Your task to perform on an android device: Open calendar and show me the fourth week of next month Image 0: 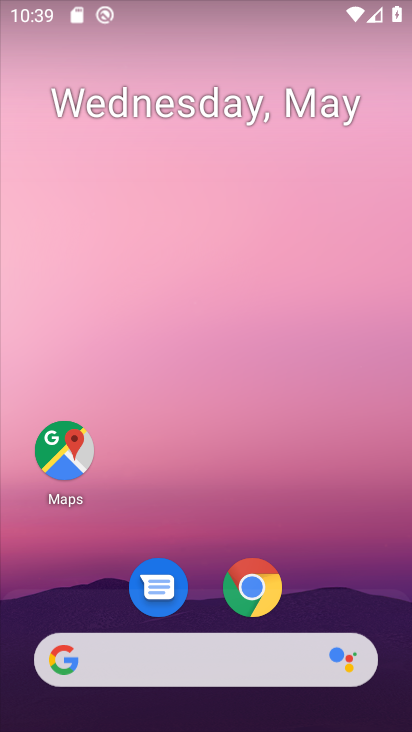
Step 0: drag from (325, 575) to (173, 15)
Your task to perform on an android device: Open calendar and show me the fourth week of next month Image 1: 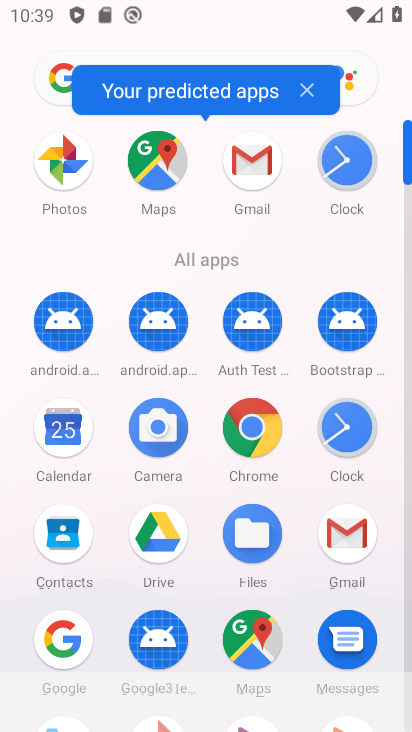
Step 1: click (67, 459)
Your task to perform on an android device: Open calendar and show me the fourth week of next month Image 2: 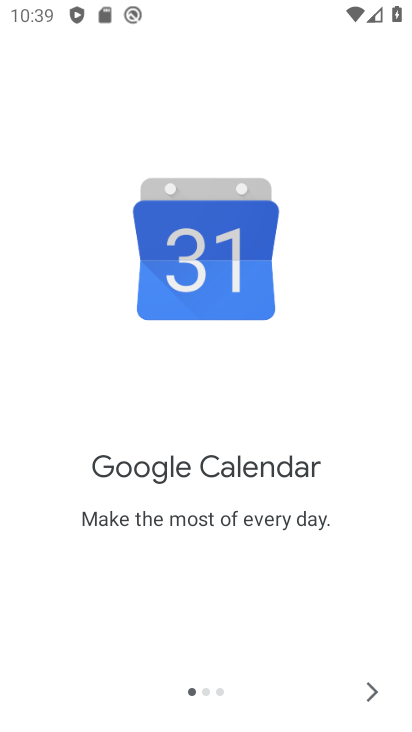
Step 2: click (374, 697)
Your task to perform on an android device: Open calendar and show me the fourth week of next month Image 3: 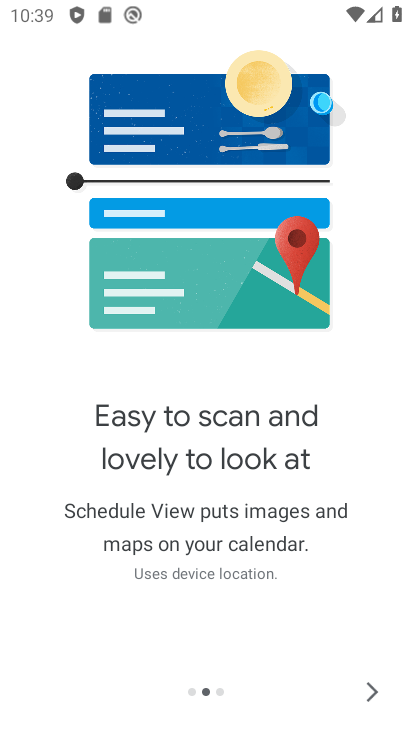
Step 3: click (374, 697)
Your task to perform on an android device: Open calendar and show me the fourth week of next month Image 4: 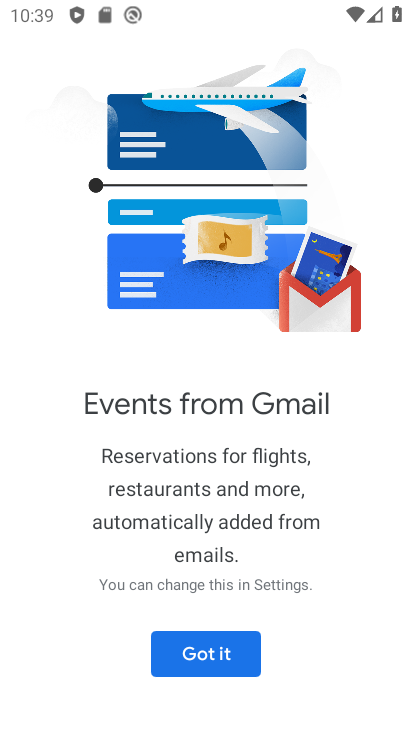
Step 4: click (211, 662)
Your task to perform on an android device: Open calendar and show me the fourth week of next month Image 5: 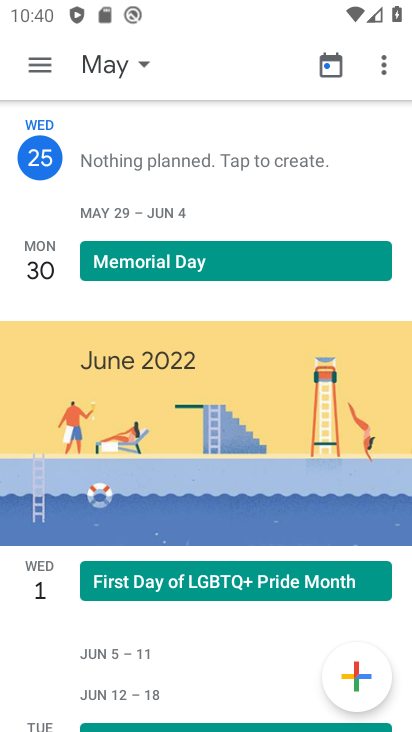
Step 5: click (51, 75)
Your task to perform on an android device: Open calendar and show me the fourth week of next month Image 6: 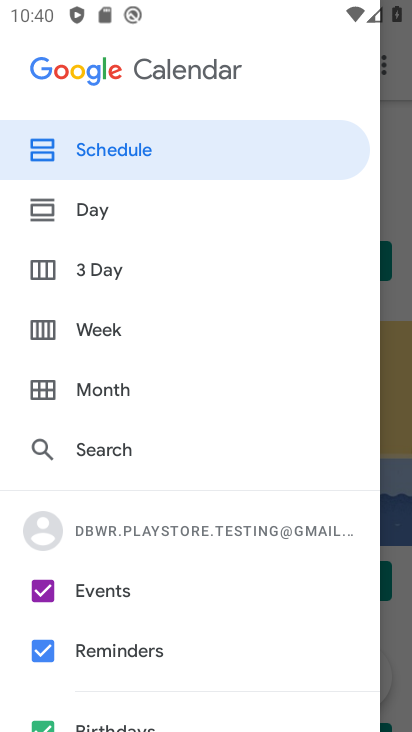
Step 6: click (98, 324)
Your task to perform on an android device: Open calendar and show me the fourth week of next month Image 7: 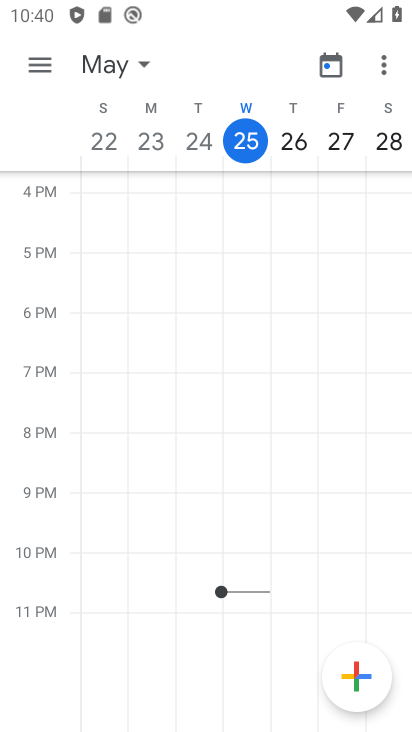
Step 7: click (98, 68)
Your task to perform on an android device: Open calendar and show me the fourth week of next month Image 8: 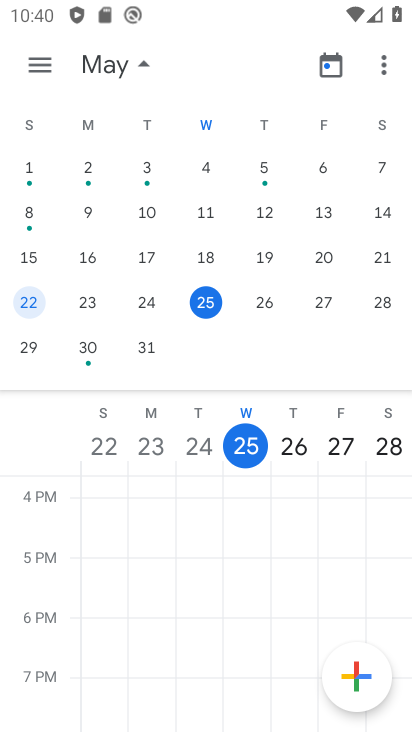
Step 8: drag from (360, 267) to (7, 318)
Your task to perform on an android device: Open calendar and show me the fourth week of next month Image 9: 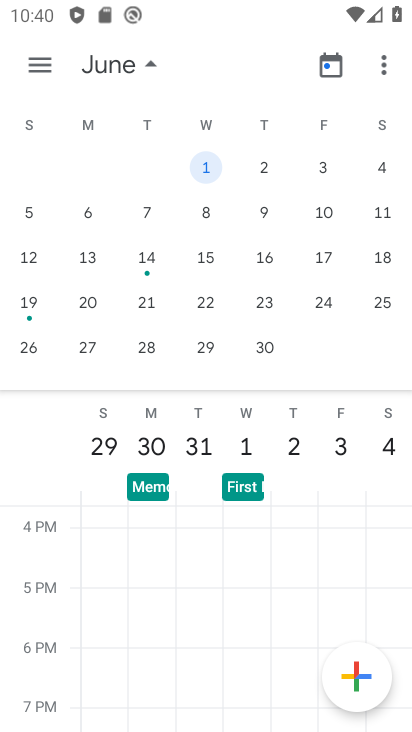
Step 9: click (30, 350)
Your task to perform on an android device: Open calendar and show me the fourth week of next month Image 10: 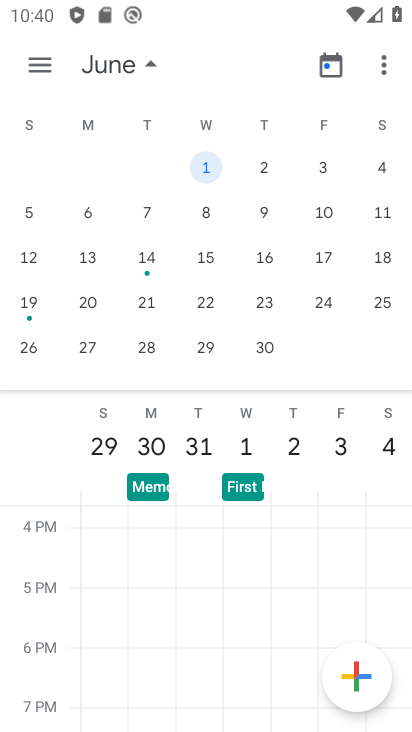
Step 10: click (37, 347)
Your task to perform on an android device: Open calendar and show me the fourth week of next month Image 11: 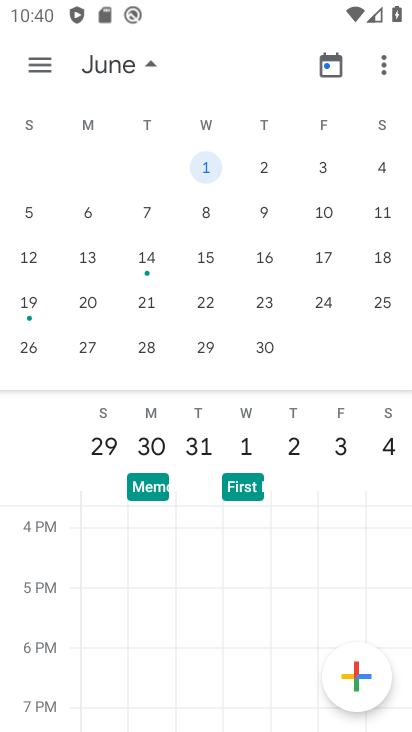
Step 11: click (32, 349)
Your task to perform on an android device: Open calendar and show me the fourth week of next month Image 12: 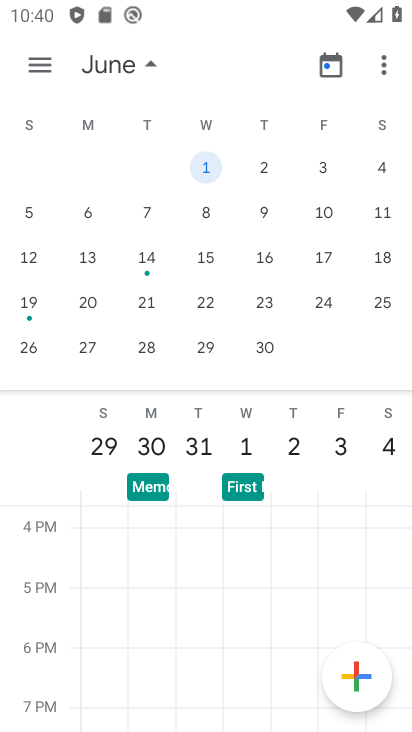
Step 12: click (32, 349)
Your task to perform on an android device: Open calendar and show me the fourth week of next month Image 13: 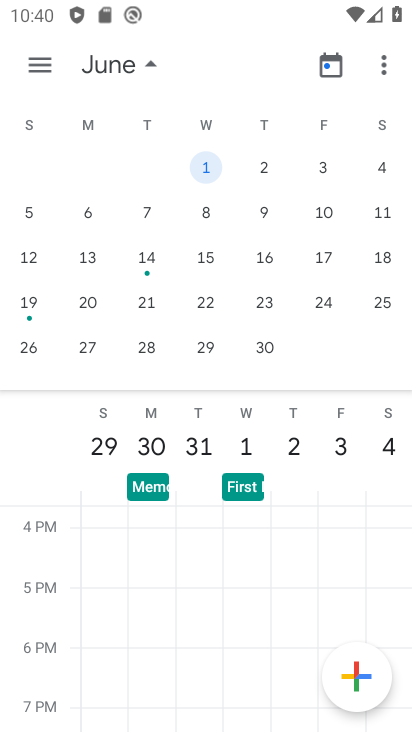
Step 13: click (31, 348)
Your task to perform on an android device: Open calendar and show me the fourth week of next month Image 14: 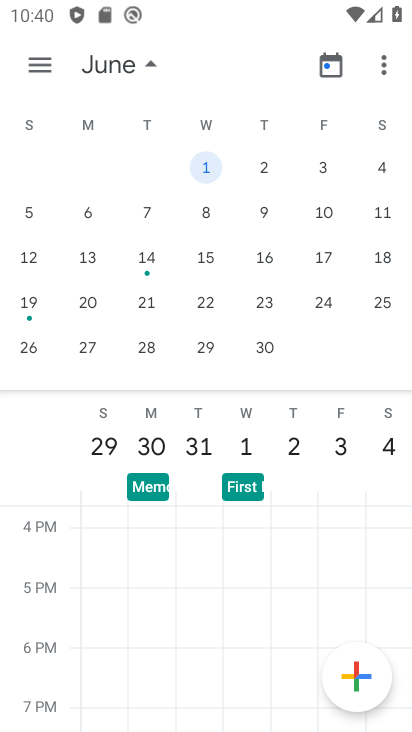
Step 14: click (31, 348)
Your task to perform on an android device: Open calendar and show me the fourth week of next month Image 15: 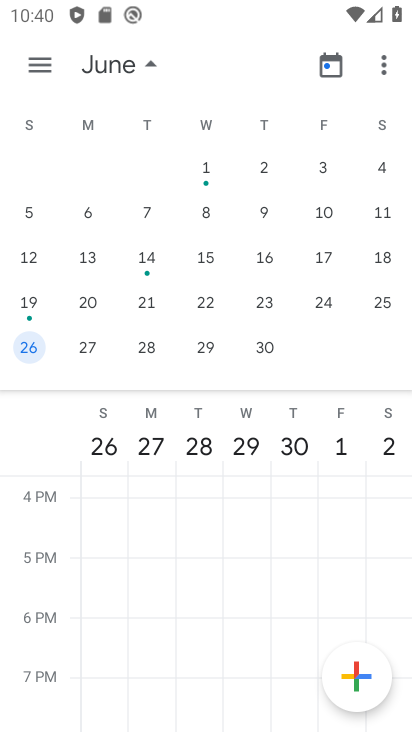
Step 15: click (31, 348)
Your task to perform on an android device: Open calendar and show me the fourth week of next month Image 16: 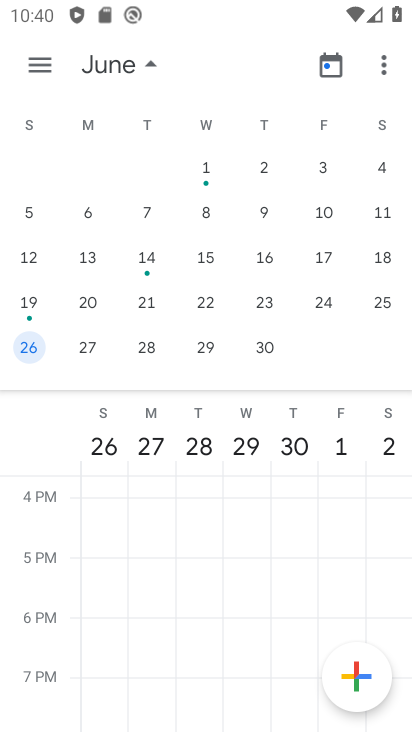
Step 16: task complete